Your task to perform on an android device: add a label to a message in the gmail app Image 0: 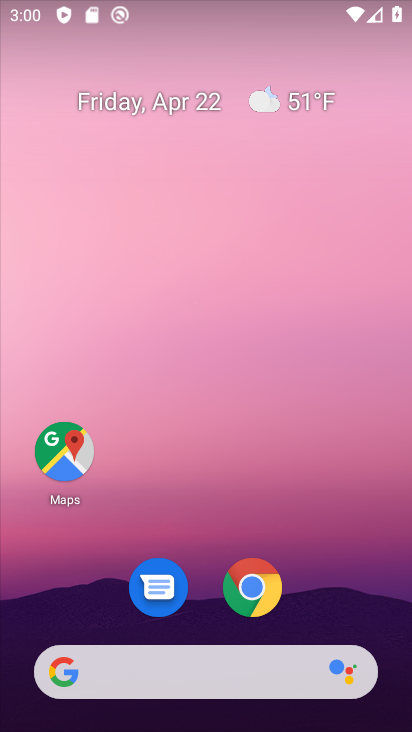
Step 0: drag from (151, 345) to (272, 115)
Your task to perform on an android device: add a label to a message in the gmail app Image 1: 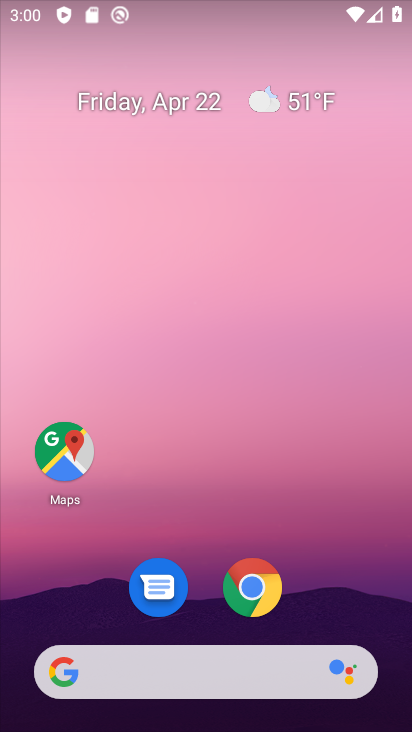
Step 1: drag from (121, 524) to (407, 110)
Your task to perform on an android device: add a label to a message in the gmail app Image 2: 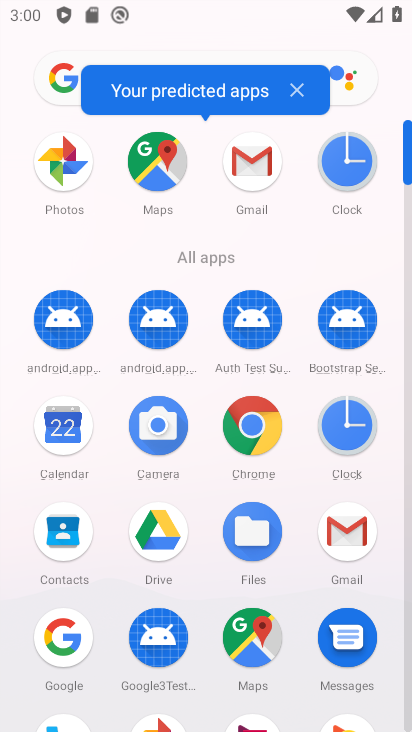
Step 2: click (234, 169)
Your task to perform on an android device: add a label to a message in the gmail app Image 3: 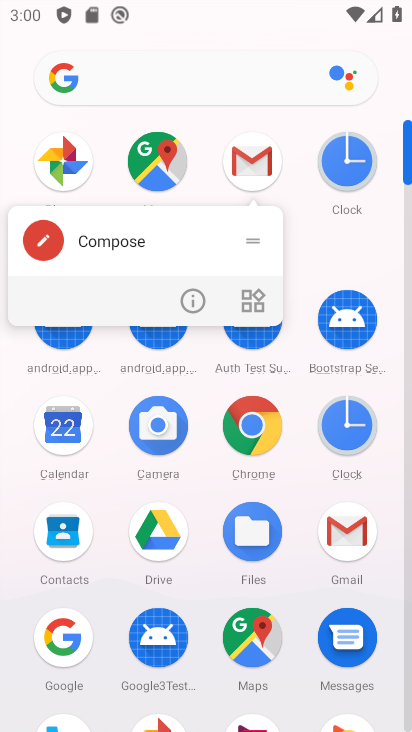
Step 3: click (197, 302)
Your task to perform on an android device: add a label to a message in the gmail app Image 4: 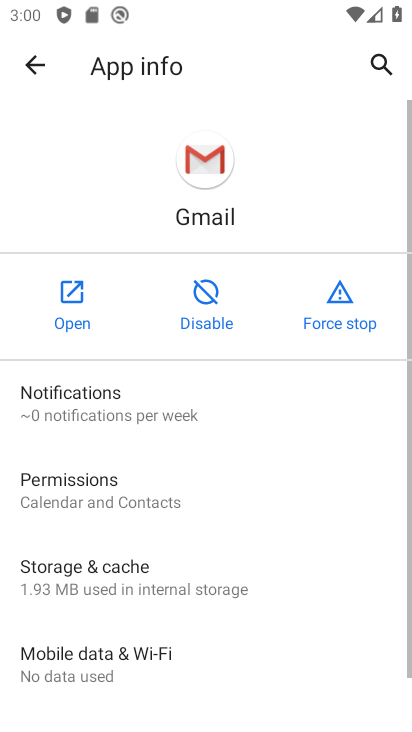
Step 4: click (73, 296)
Your task to perform on an android device: add a label to a message in the gmail app Image 5: 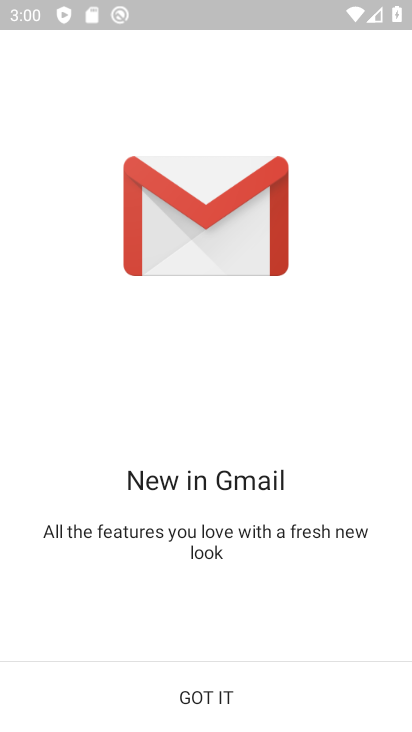
Step 5: click (235, 703)
Your task to perform on an android device: add a label to a message in the gmail app Image 6: 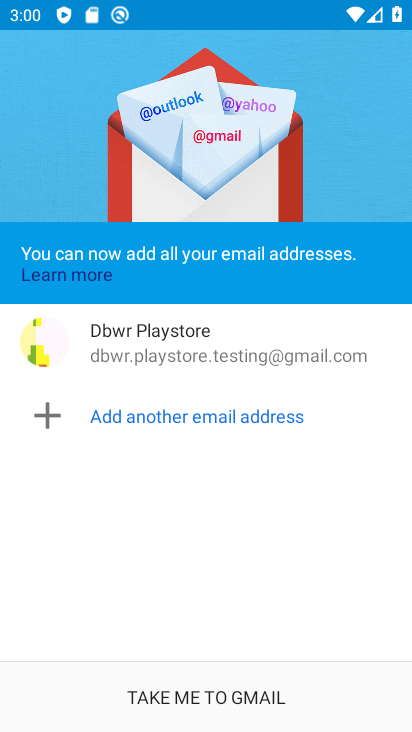
Step 6: click (247, 701)
Your task to perform on an android device: add a label to a message in the gmail app Image 7: 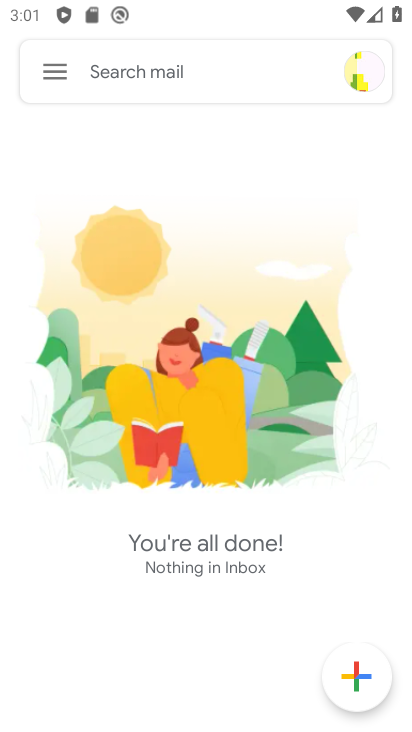
Step 7: click (53, 68)
Your task to perform on an android device: add a label to a message in the gmail app Image 8: 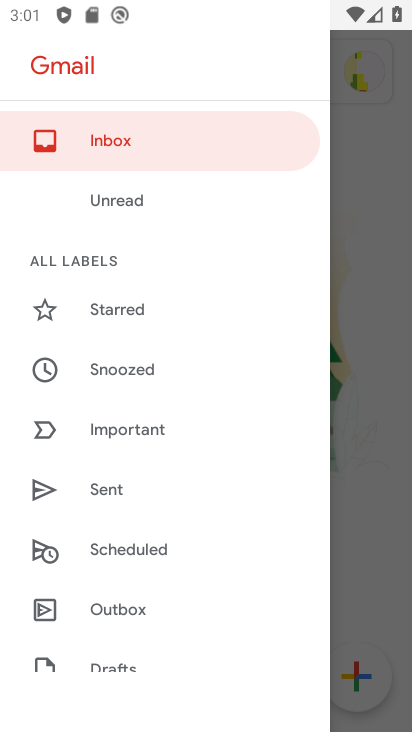
Step 8: task complete